Your task to perform on an android device: toggle sleep mode Image 0: 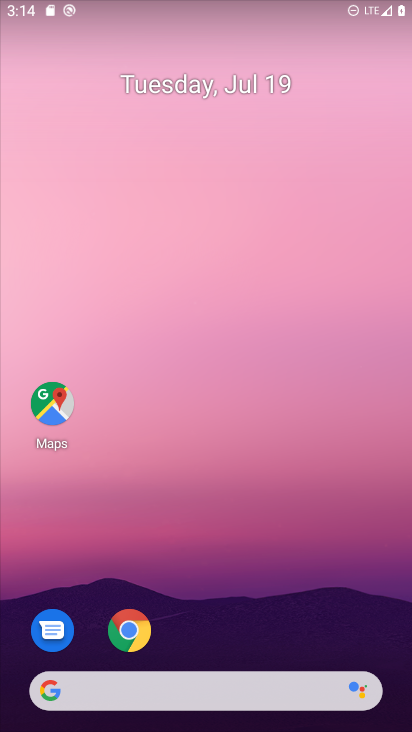
Step 0: drag from (395, 634) to (343, 64)
Your task to perform on an android device: toggle sleep mode Image 1: 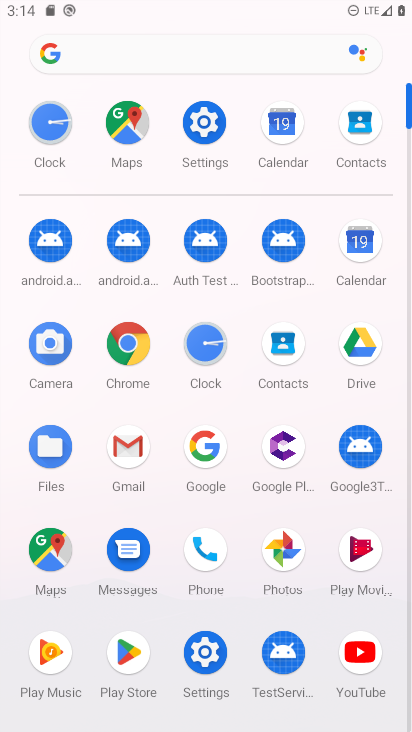
Step 1: click (206, 654)
Your task to perform on an android device: toggle sleep mode Image 2: 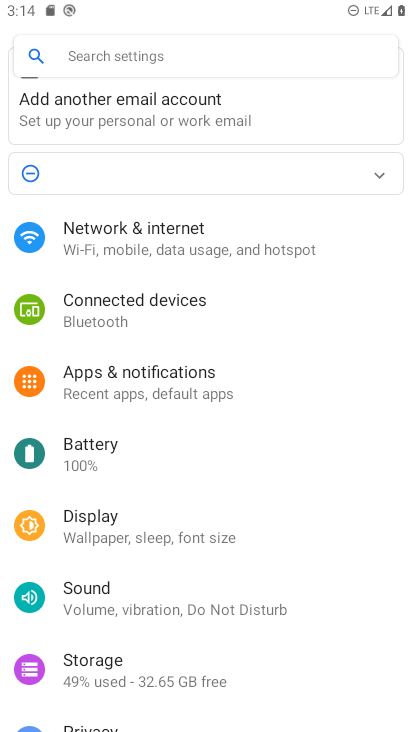
Step 2: click (107, 526)
Your task to perform on an android device: toggle sleep mode Image 3: 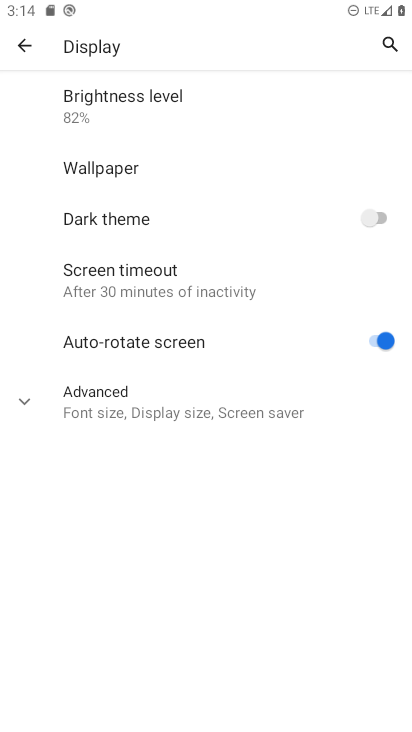
Step 3: click (23, 404)
Your task to perform on an android device: toggle sleep mode Image 4: 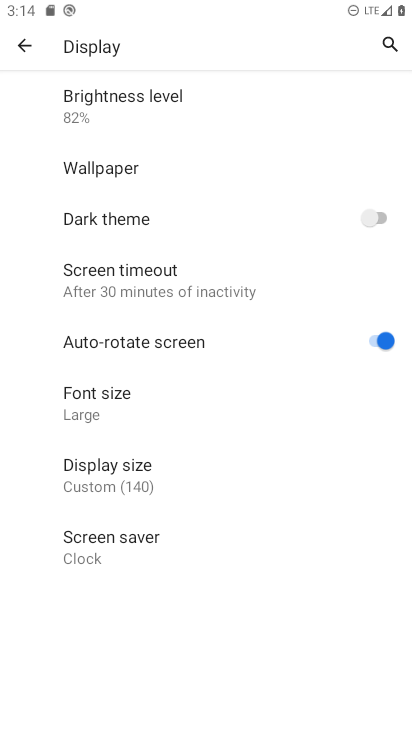
Step 4: task complete